Your task to perform on an android device: check data usage Image 0: 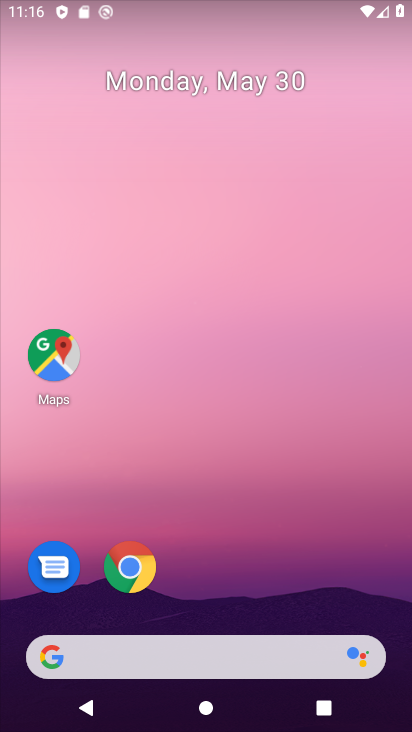
Step 0: drag from (351, 578) to (365, 128)
Your task to perform on an android device: check data usage Image 1: 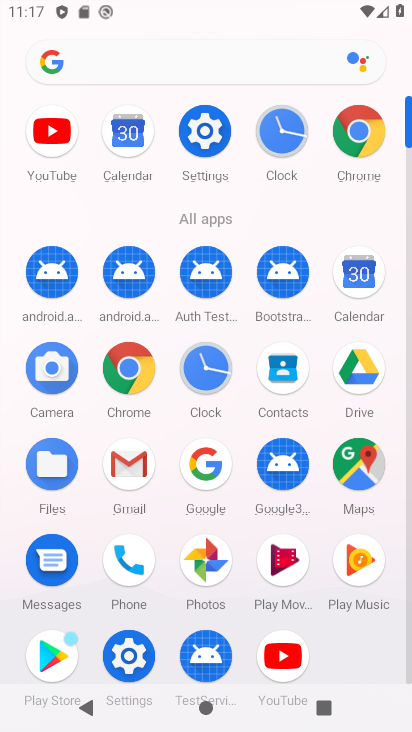
Step 1: click (135, 685)
Your task to perform on an android device: check data usage Image 2: 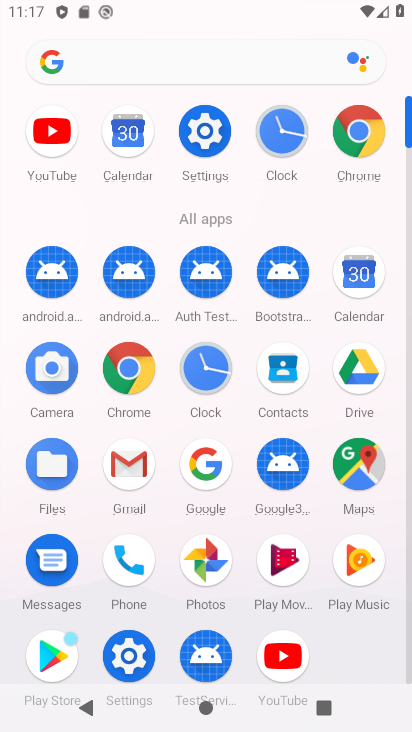
Step 2: click (130, 672)
Your task to perform on an android device: check data usage Image 3: 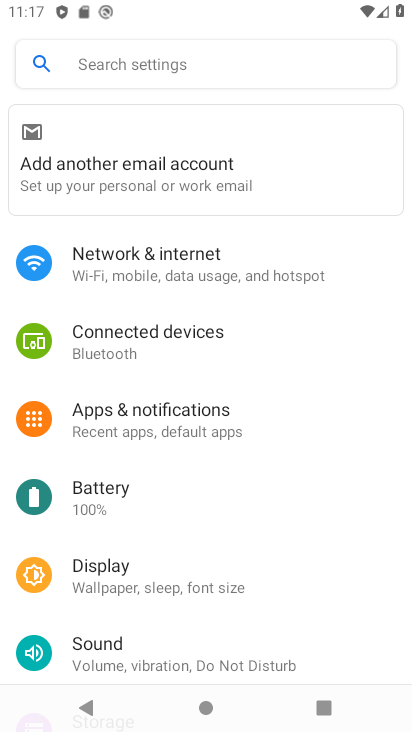
Step 3: drag from (208, 640) to (213, 307)
Your task to perform on an android device: check data usage Image 4: 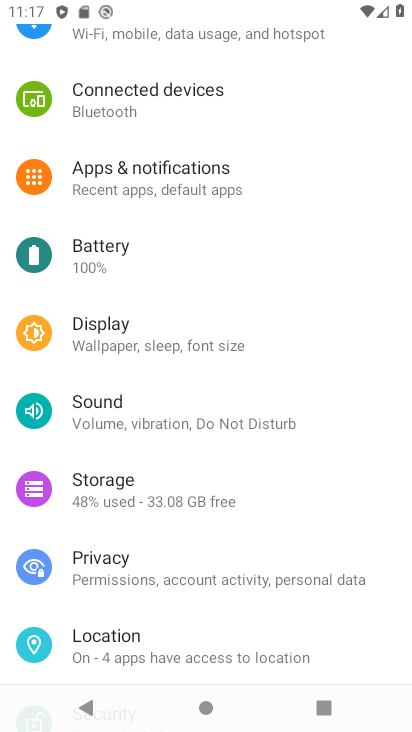
Step 4: drag from (289, 605) to (293, 199)
Your task to perform on an android device: check data usage Image 5: 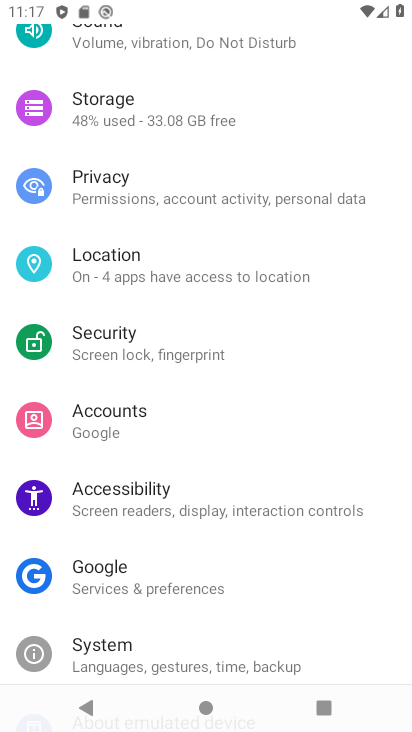
Step 5: drag from (268, 175) to (301, 536)
Your task to perform on an android device: check data usage Image 6: 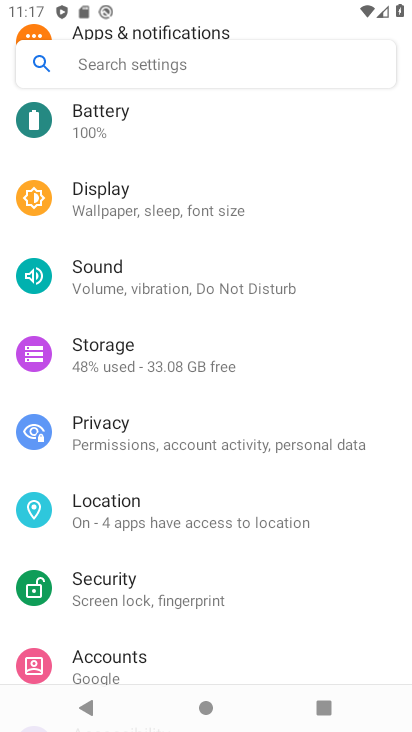
Step 6: drag from (258, 243) to (277, 654)
Your task to perform on an android device: check data usage Image 7: 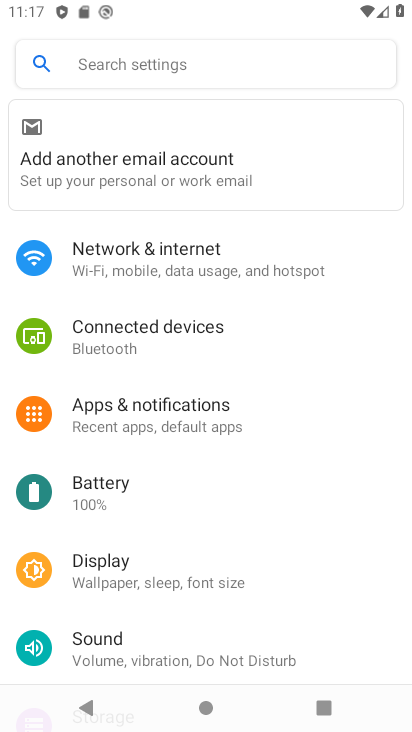
Step 7: click (215, 252)
Your task to perform on an android device: check data usage Image 8: 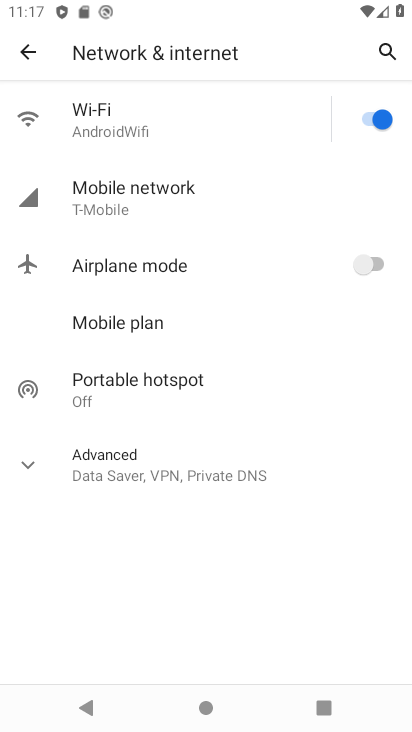
Step 8: task complete